Your task to perform on an android device: visit the assistant section in the google photos Image 0: 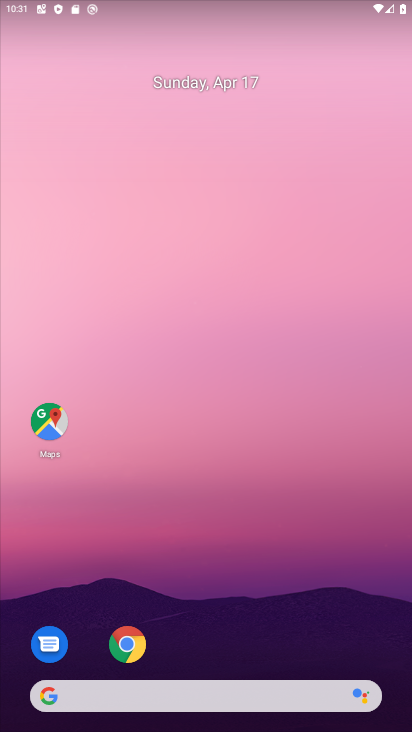
Step 0: click (410, 241)
Your task to perform on an android device: visit the assistant section in the google photos Image 1: 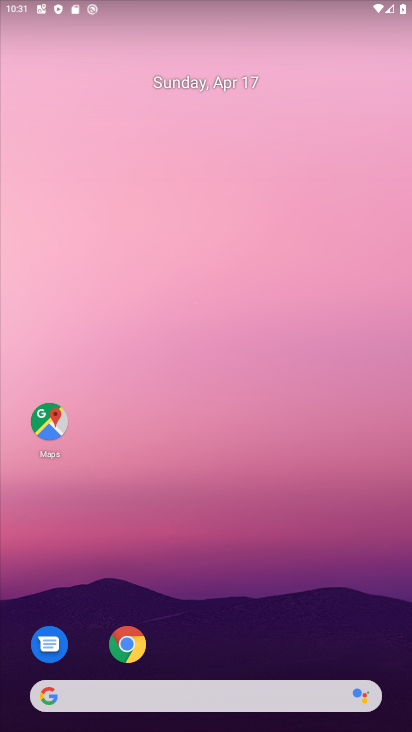
Step 1: drag from (255, 466) to (388, 4)
Your task to perform on an android device: visit the assistant section in the google photos Image 2: 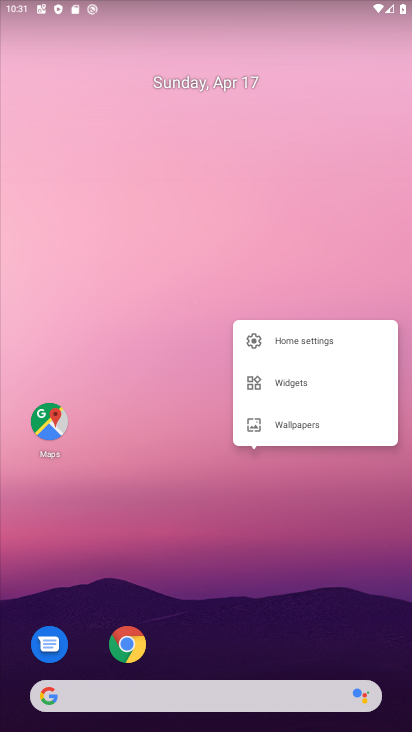
Step 2: click (230, 622)
Your task to perform on an android device: visit the assistant section in the google photos Image 3: 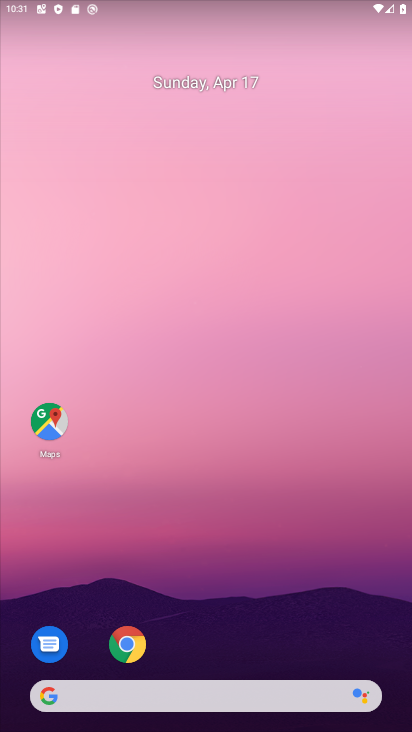
Step 3: drag from (253, 458) to (392, 15)
Your task to perform on an android device: visit the assistant section in the google photos Image 4: 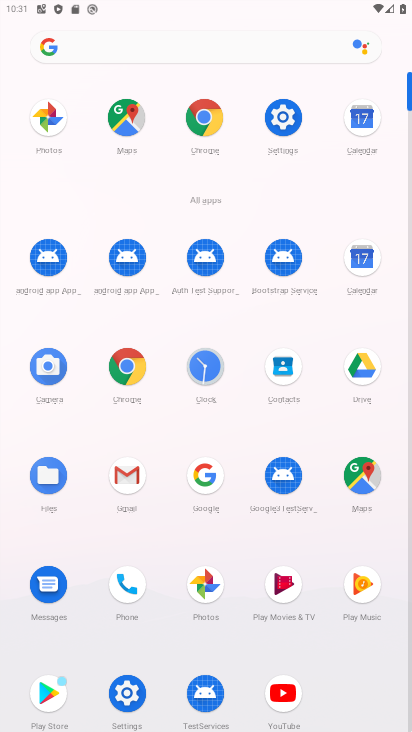
Step 4: click (198, 585)
Your task to perform on an android device: visit the assistant section in the google photos Image 5: 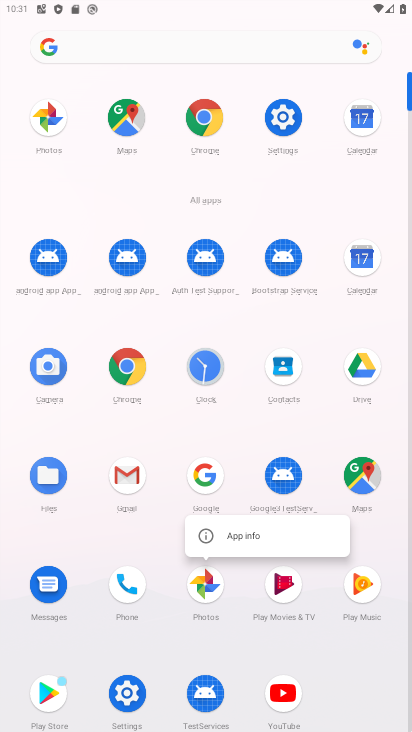
Step 5: click (198, 585)
Your task to perform on an android device: visit the assistant section in the google photos Image 6: 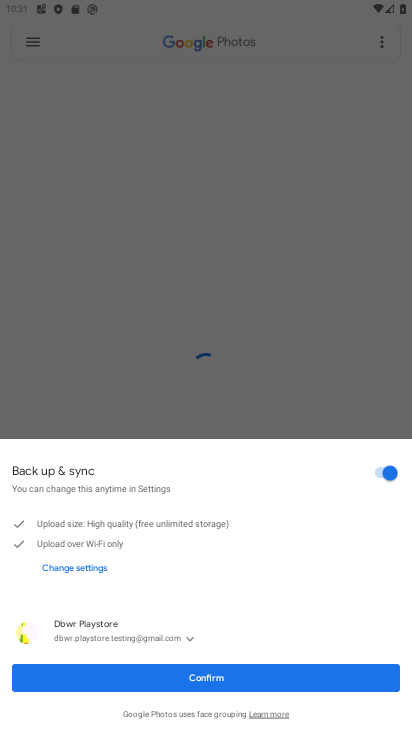
Step 6: click (251, 678)
Your task to perform on an android device: visit the assistant section in the google photos Image 7: 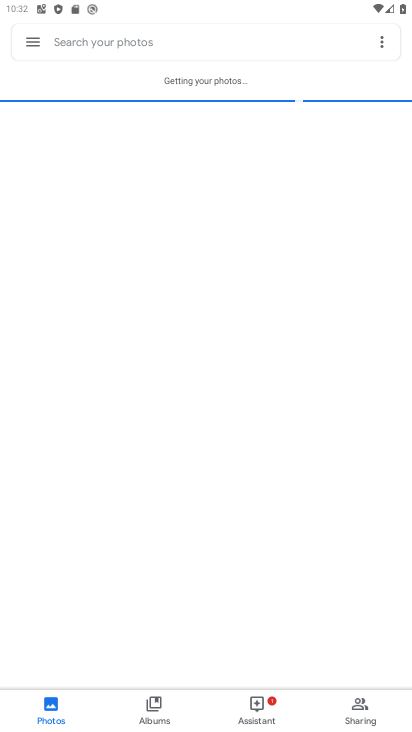
Step 7: click (265, 706)
Your task to perform on an android device: visit the assistant section in the google photos Image 8: 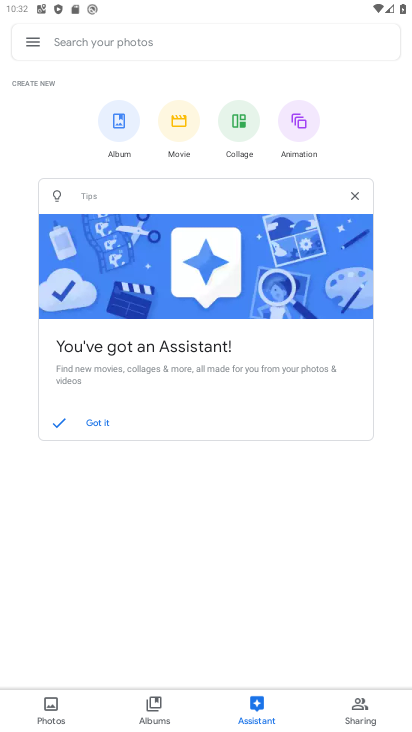
Step 8: task complete